Your task to perform on an android device: refresh tabs in the chrome app Image 0: 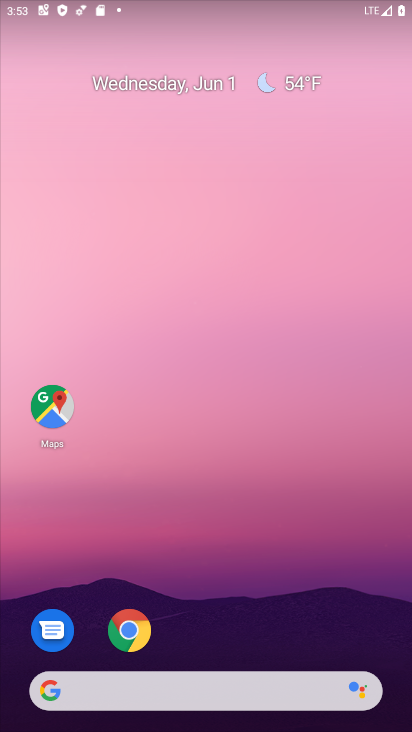
Step 0: drag from (286, 443) to (20, 115)
Your task to perform on an android device: refresh tabs in the chrome app Image 1: 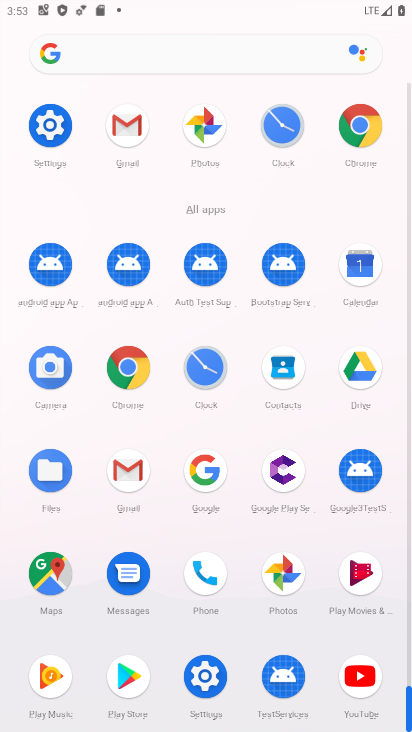
Step 1: drag from (9, 554) to (18, 222)
Your task to perform on an android device: refresh tabs in the chrome app Image 2: 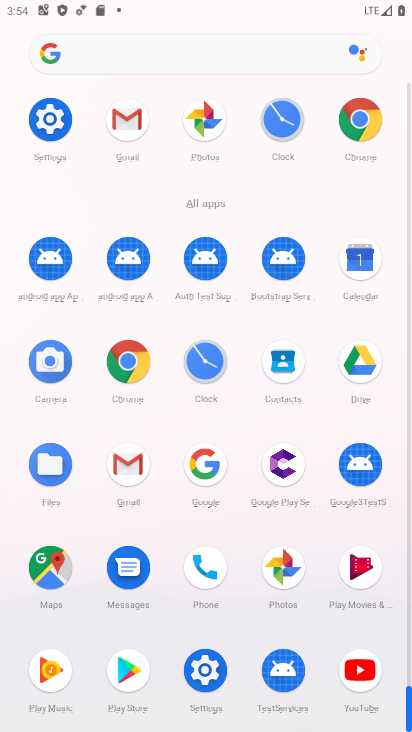
Step 2: drag from (11, 498) to (17, 184)
Your task to perform on an android device: refresh tabs in the chrome app Image 3: 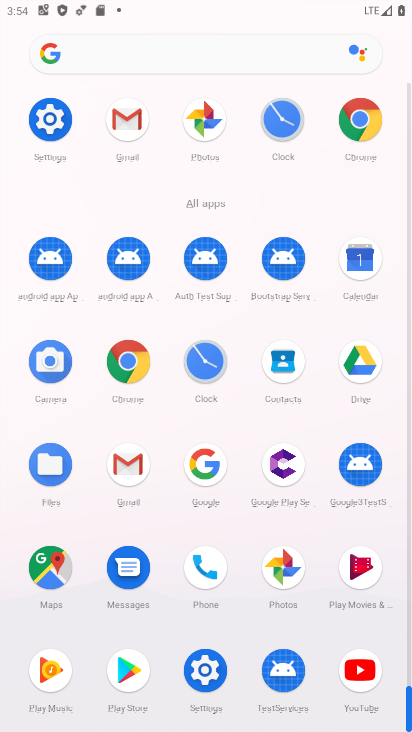
Step 3: click (134, 359)
Your task to perform on an android device: refresh tabs in the chrome app Image 4: 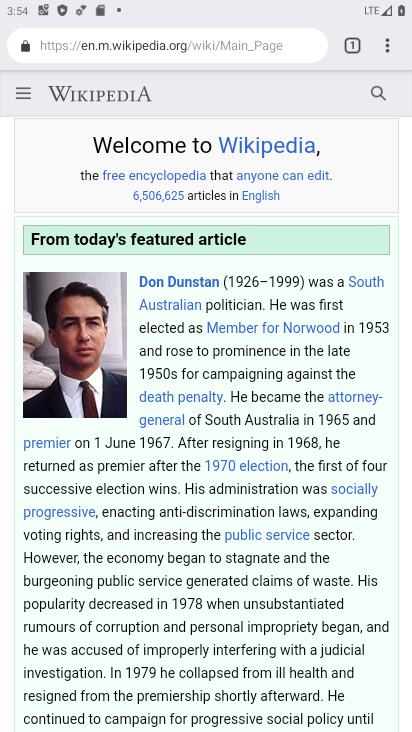
Step 4: click (385, 39)
Your task to perform on an android device: refresh tabs in the chrome app Image 5: 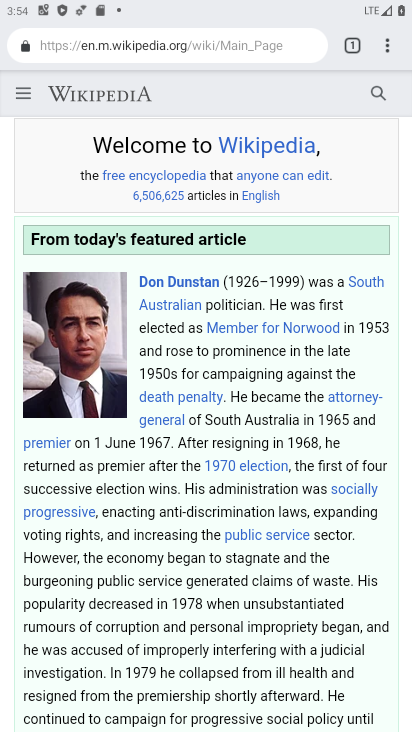
Step 5: task complete